Your task to perform on an android device: Open Amazon Image 0: 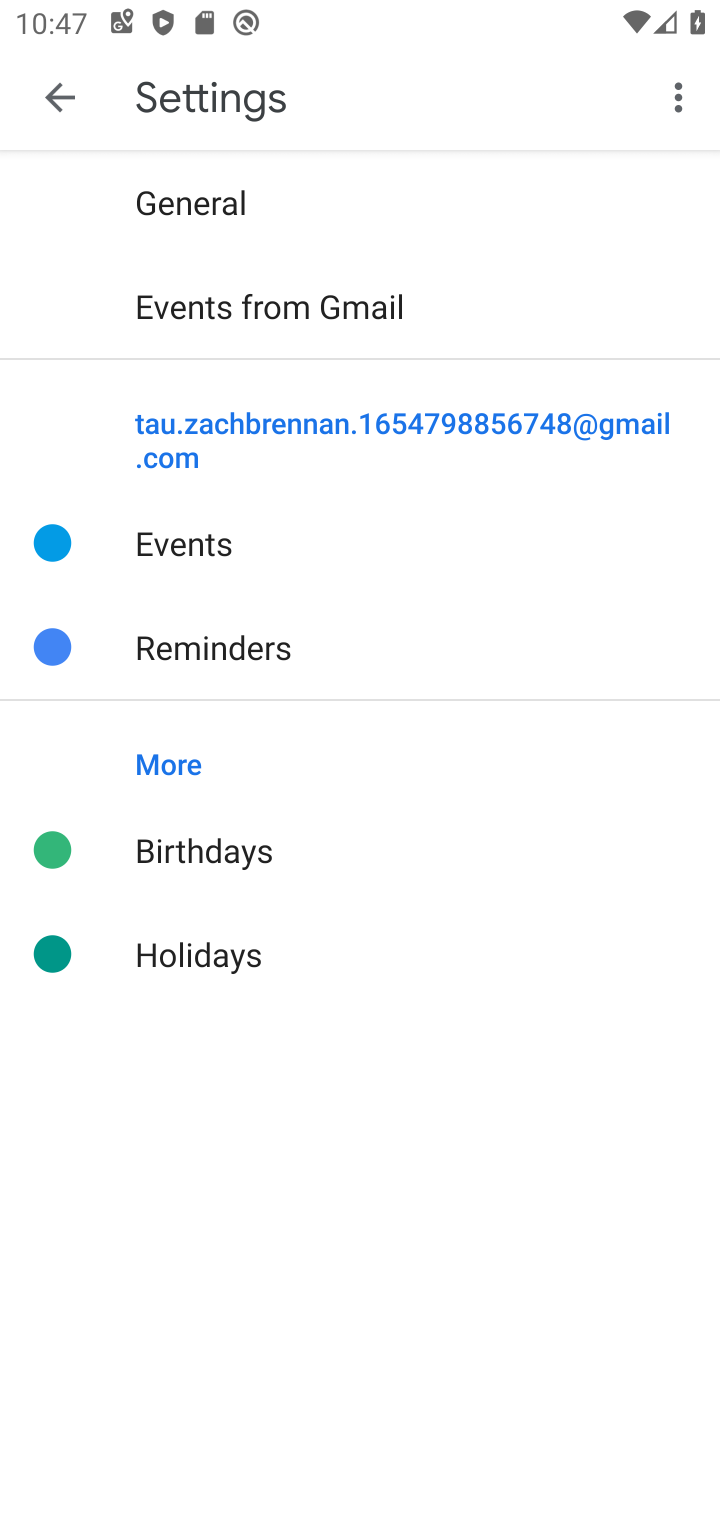
Step 0: press home button
Your task to perform on an android device: Open Amazon Image 1: 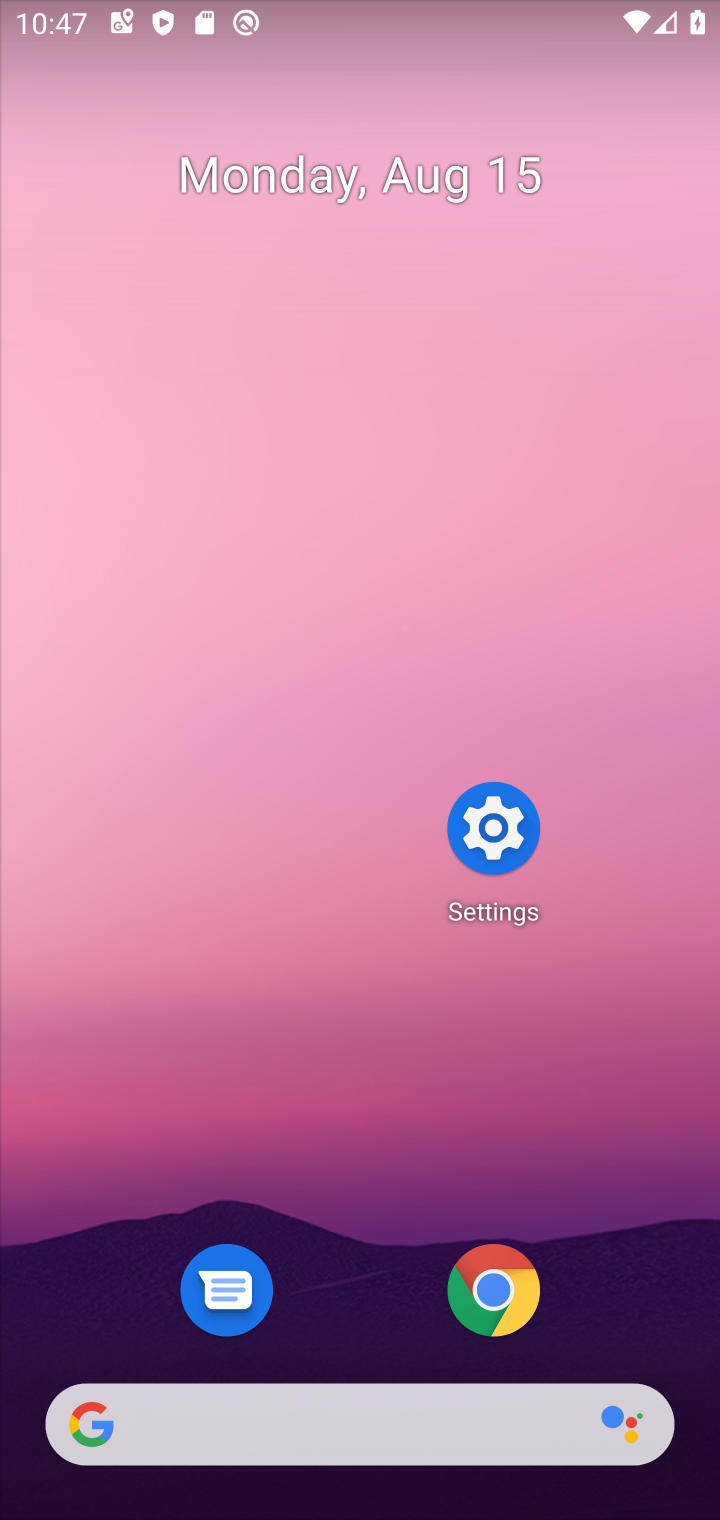
Step 1: click (491, 1303)
Your task to perform on an android device: Open Amazon Image 2: 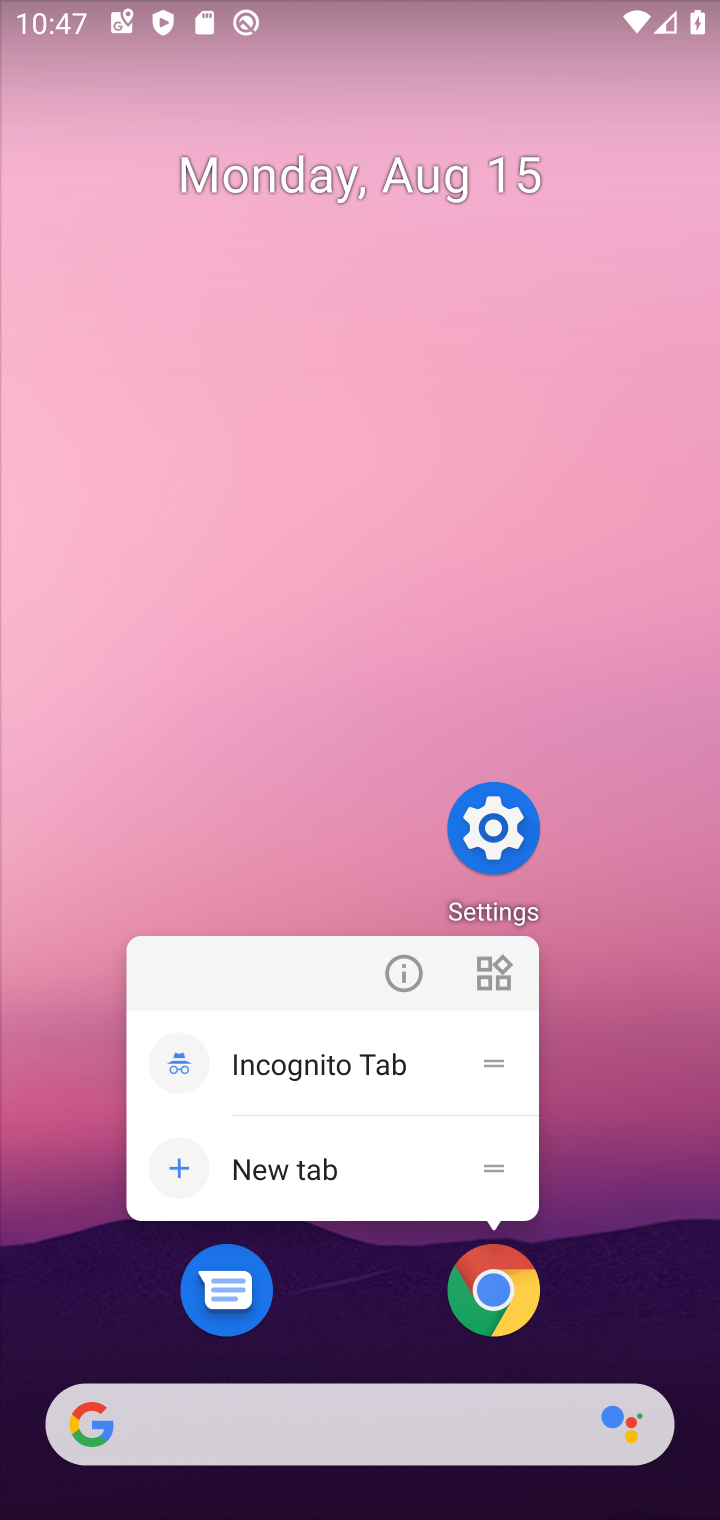
Step 2: click (491, 1302)
Your task to perform on an android device: Open Amazon Image 3: 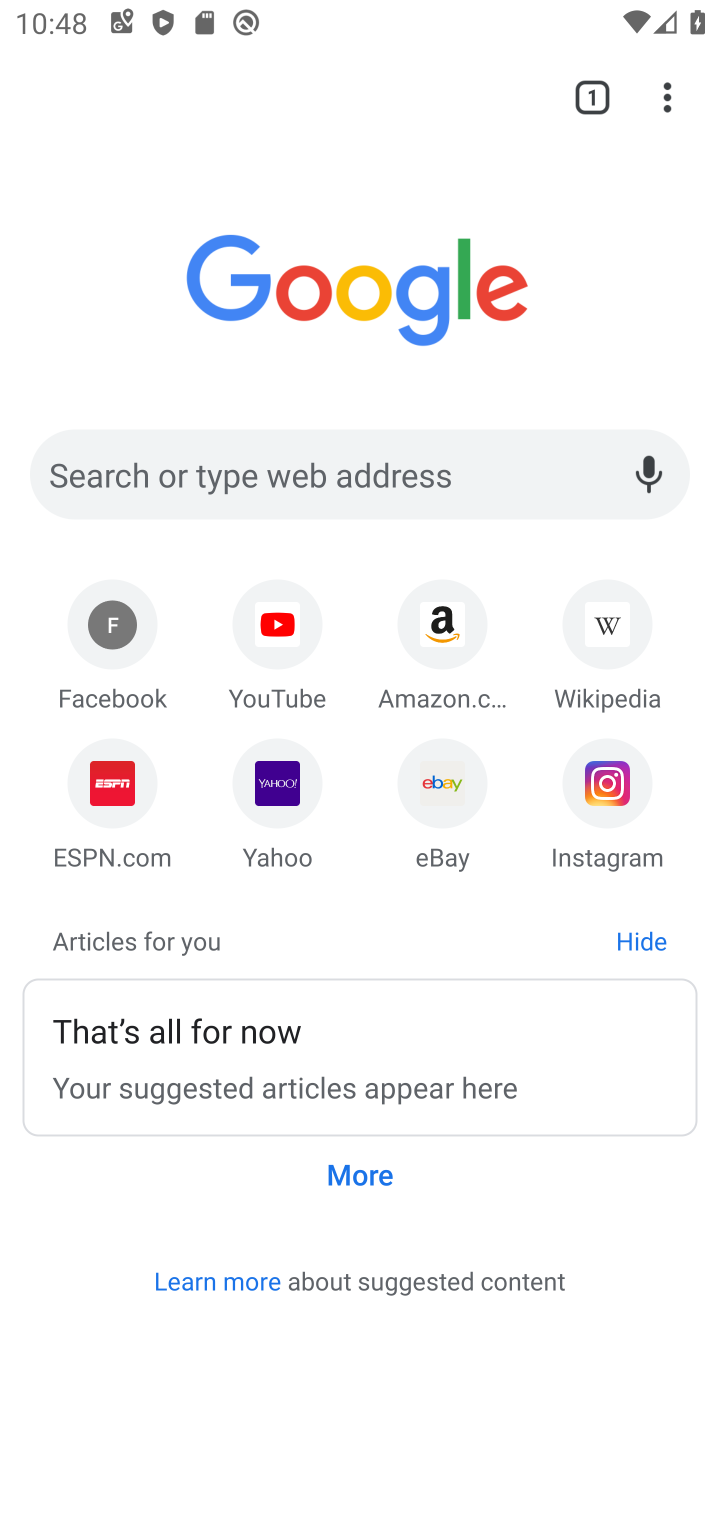
Step 3: click (449, 628)
Your task to perform on an android device: Open Amazon Image 4: 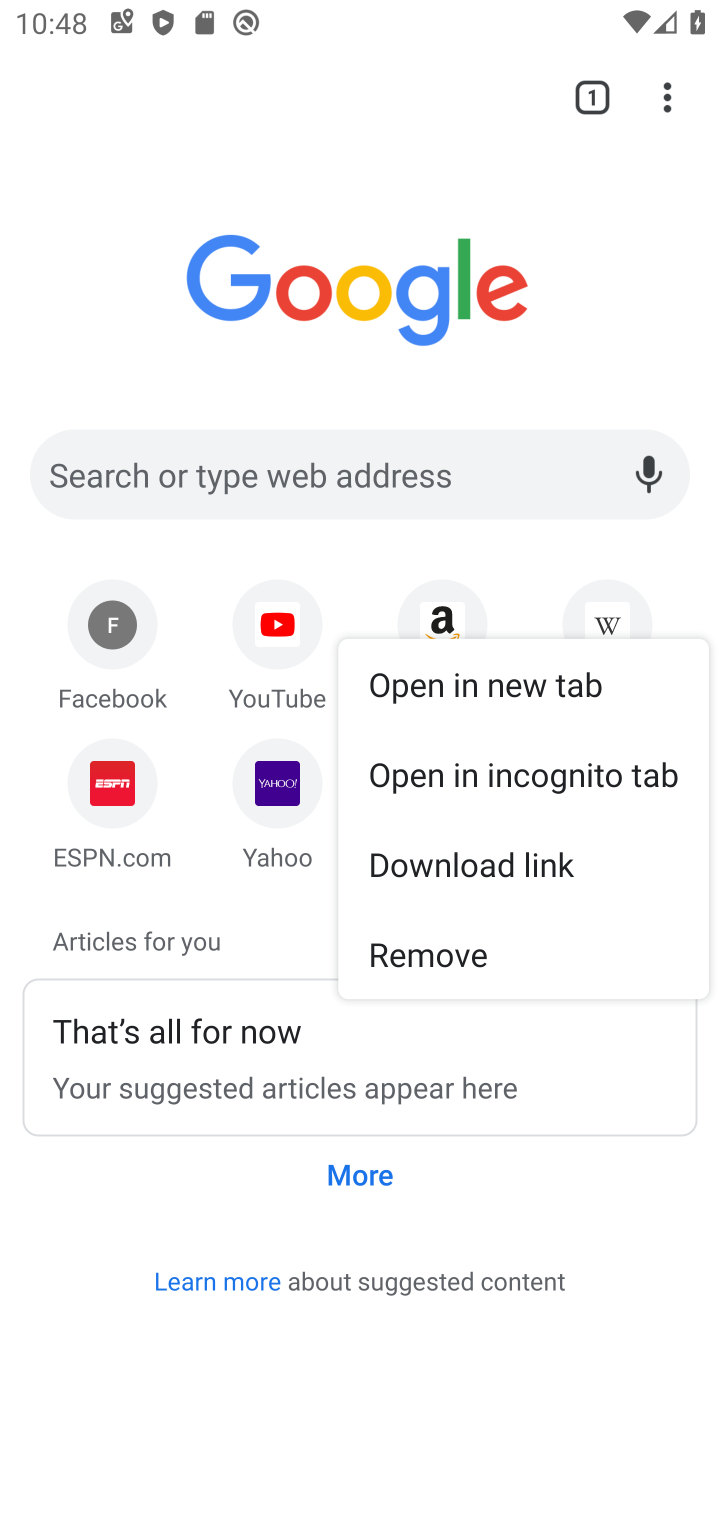
Step 4: click (424, 606)
Your task to perform on an android device: Open Amazon Image 5: 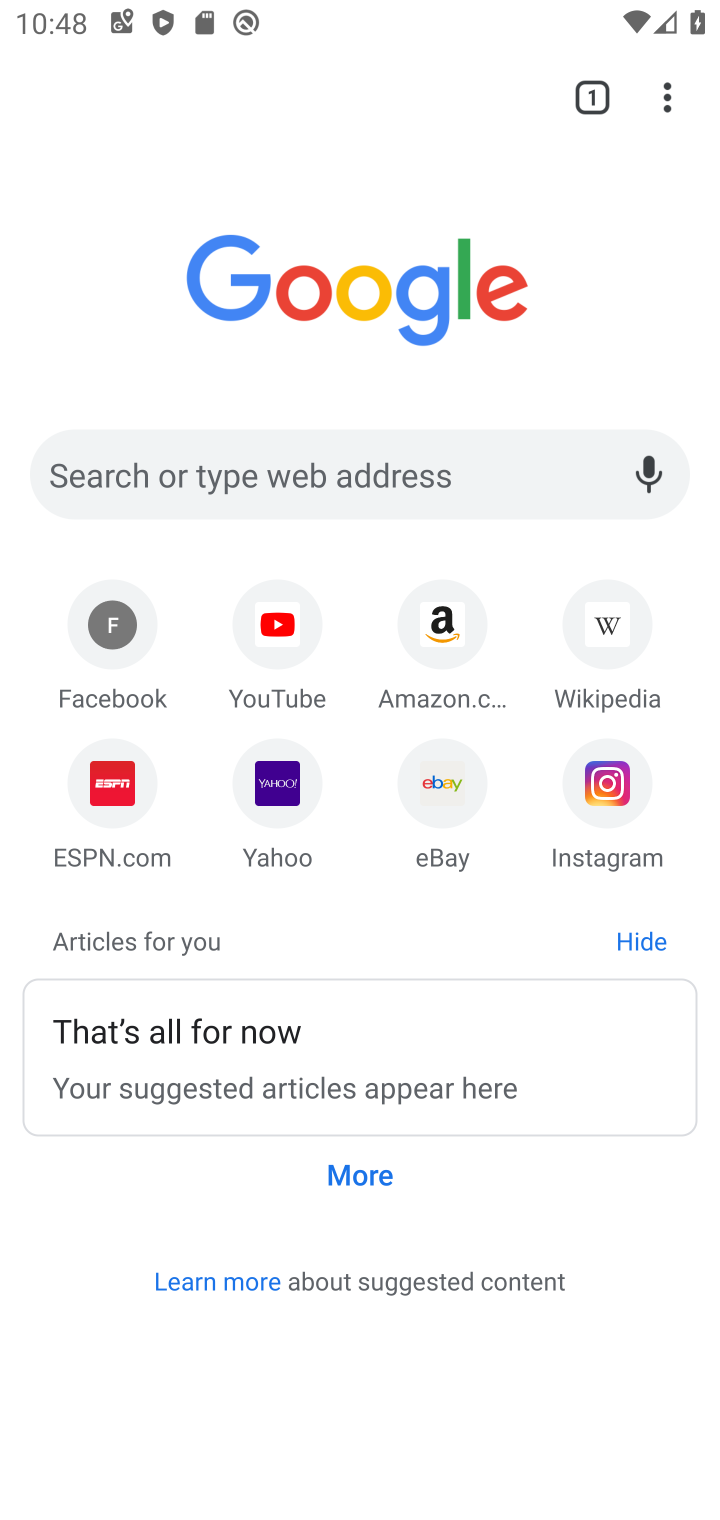
Step 5: click (443, 616)
Your task to perform on an android device: Open Amazon Image 6: 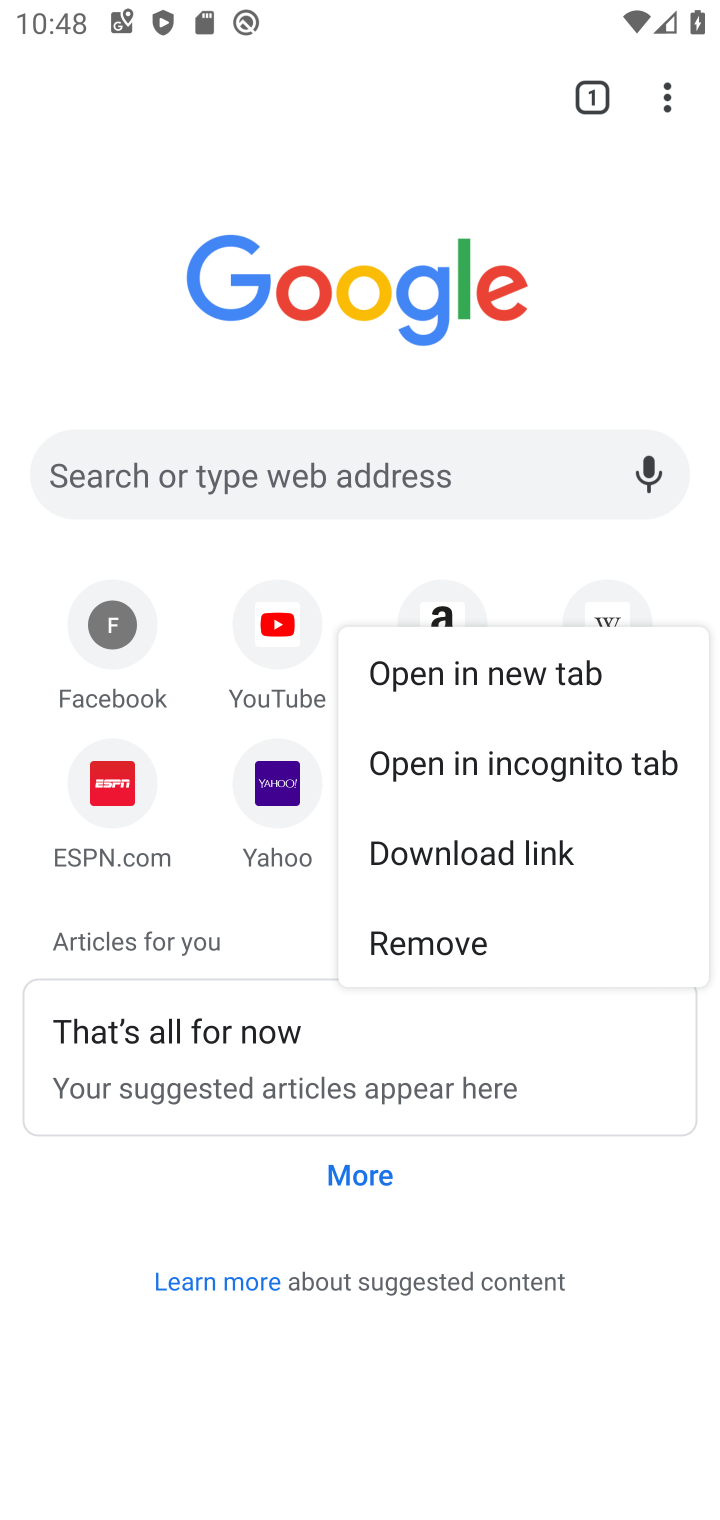
Step 6: click (443, 616)
Your task to perform on an android device: Open Amazon Image 7: 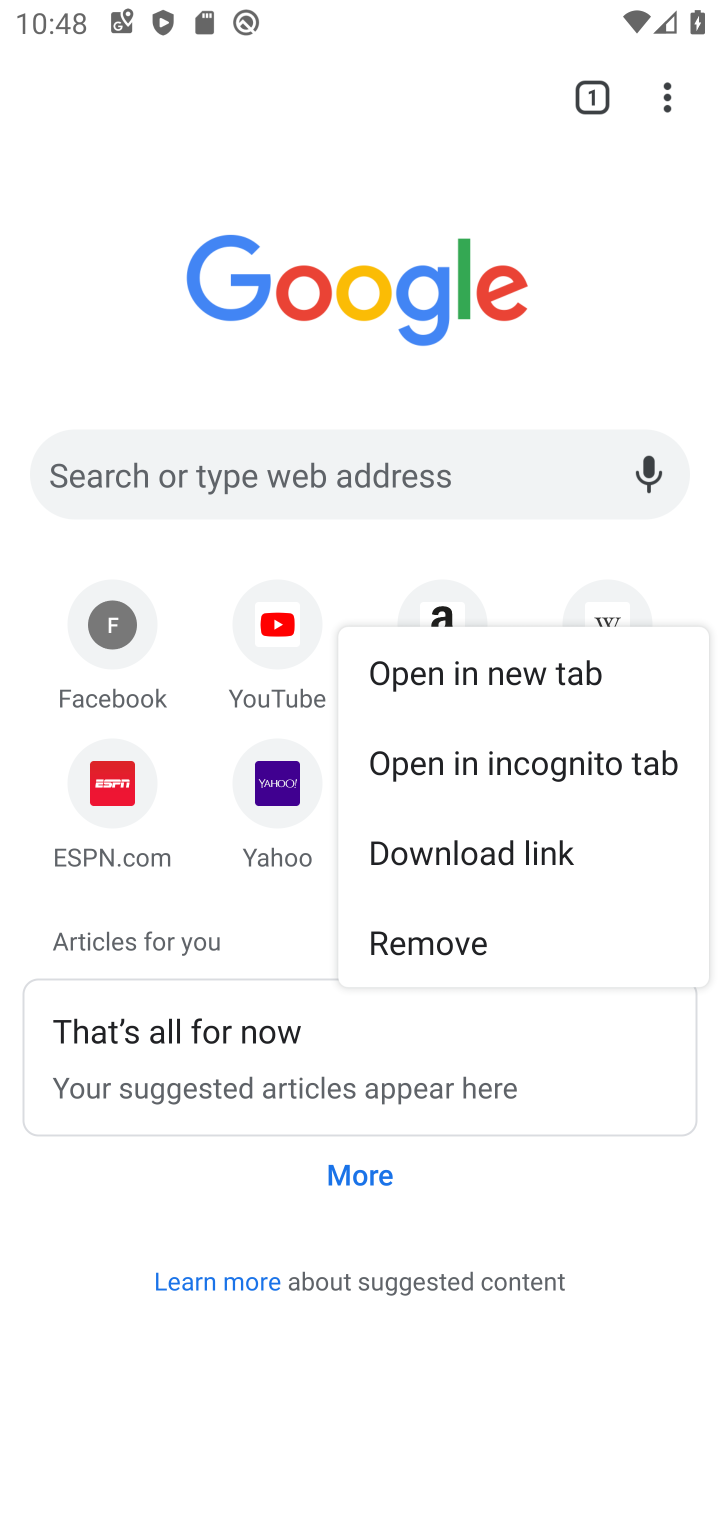
Step 7: click (443, 610)
Your task to perform on an android device: Open Amazon Image 8: 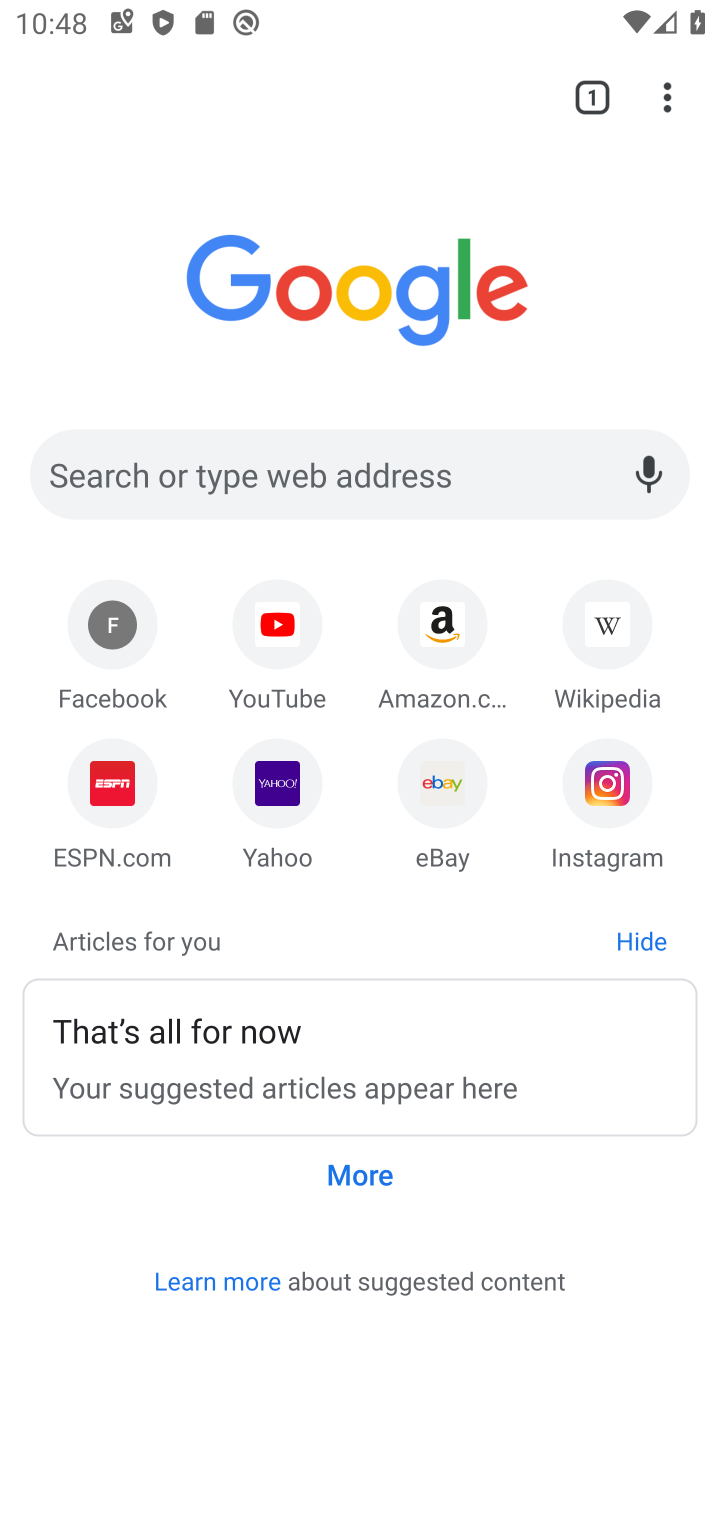
Step 8: click (433, 632)
Your task to perform on an android device: Open Amazon Image 9: 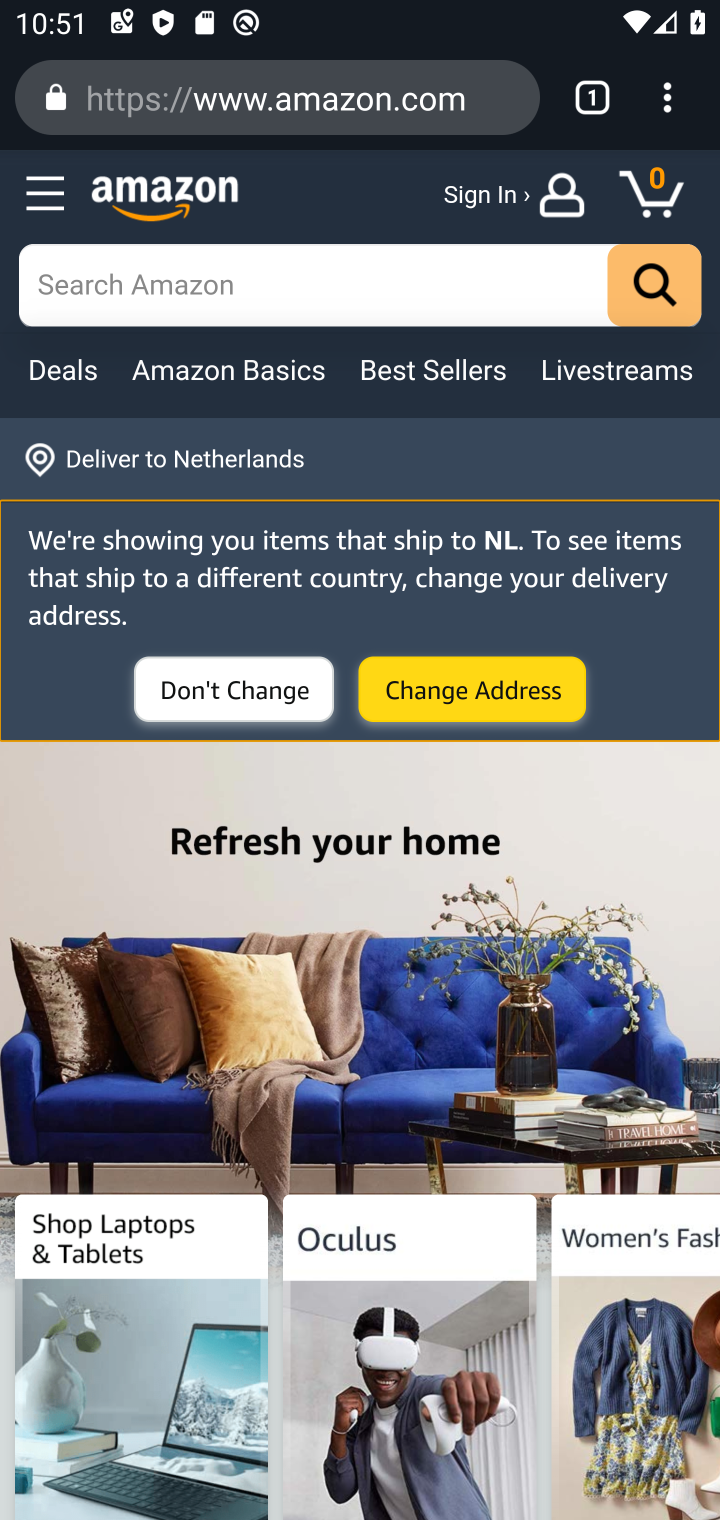
Step 9: task complete